Your task to perform on an android device: toggle priority inbox in the gmail app Image 0: 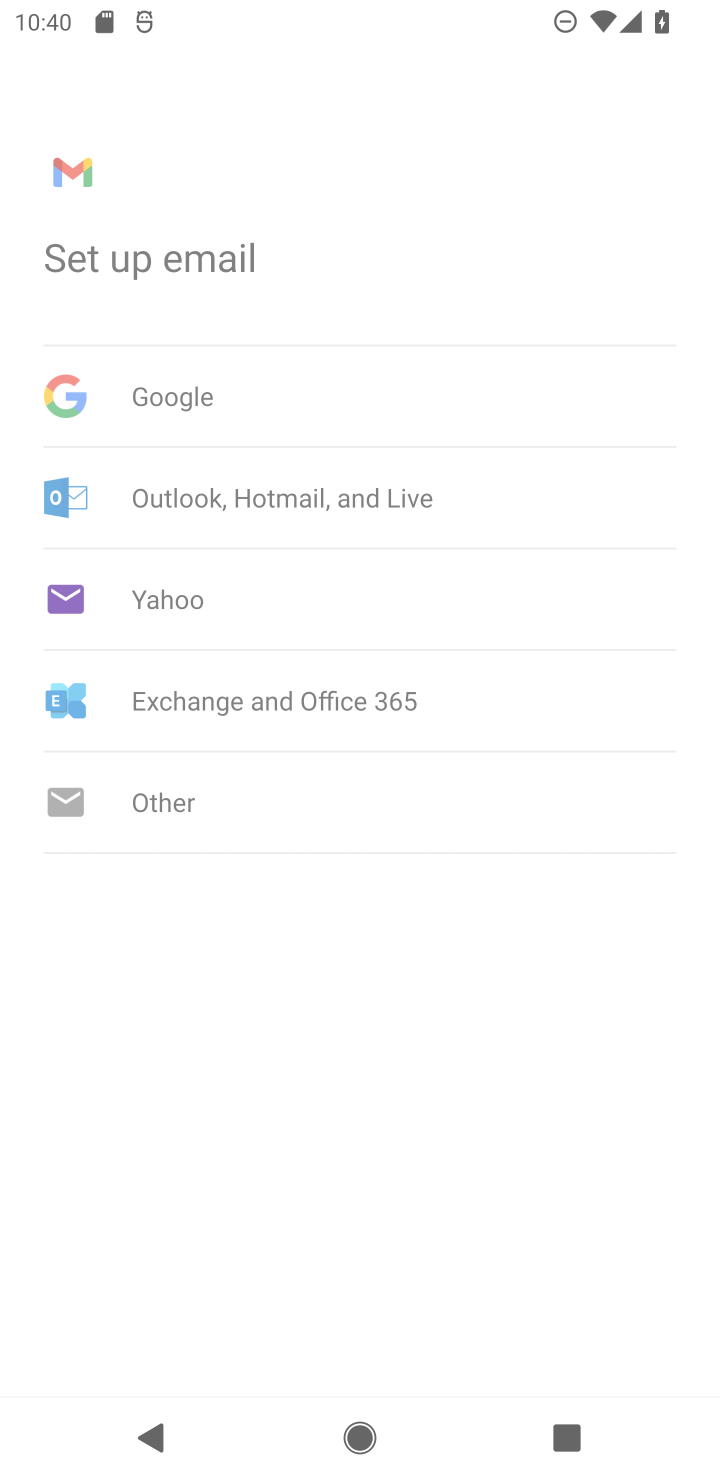
Step 0: click (657, 194)
Your task to perform on an android device: toggle priority inbox in the gmail app Image 1: 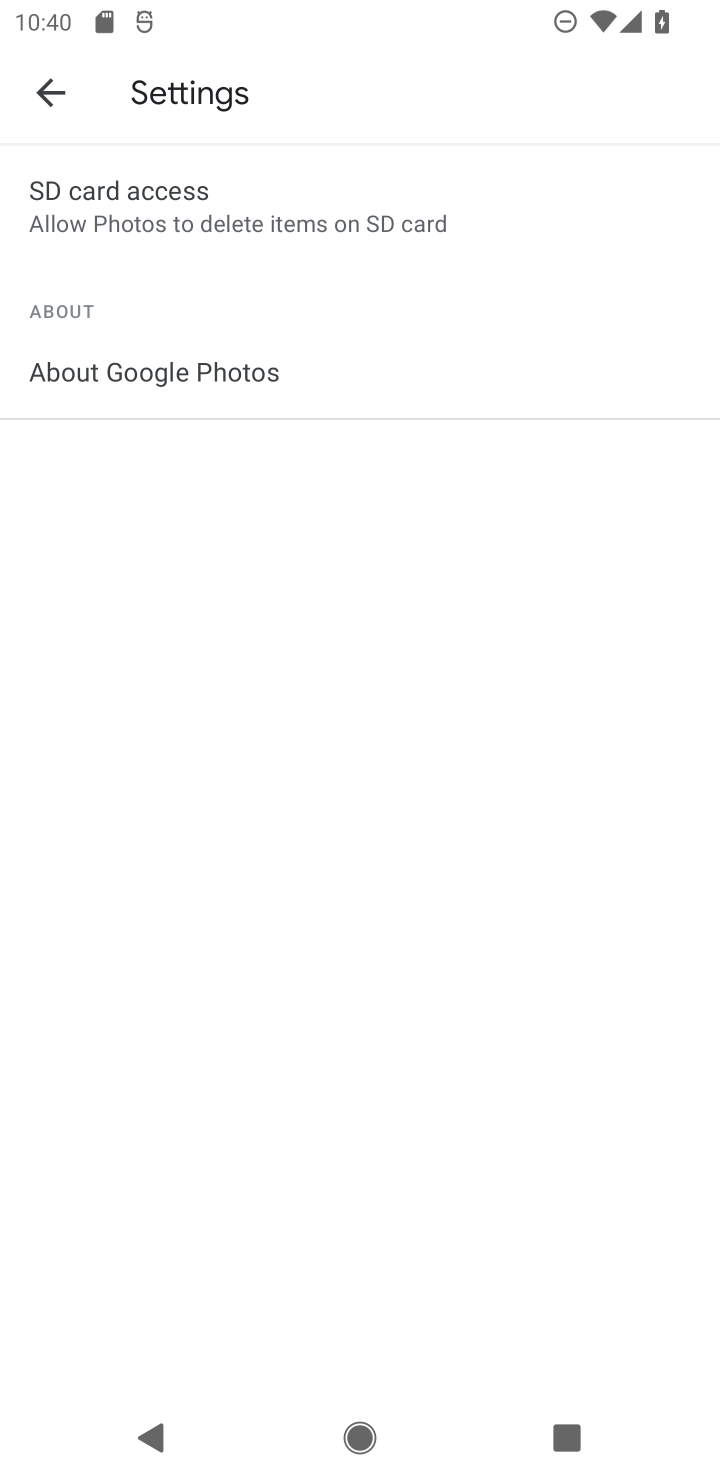
Step 1: press home button
Your task to perform on an android device: toggle priority inbox in the gmail app Image 2: 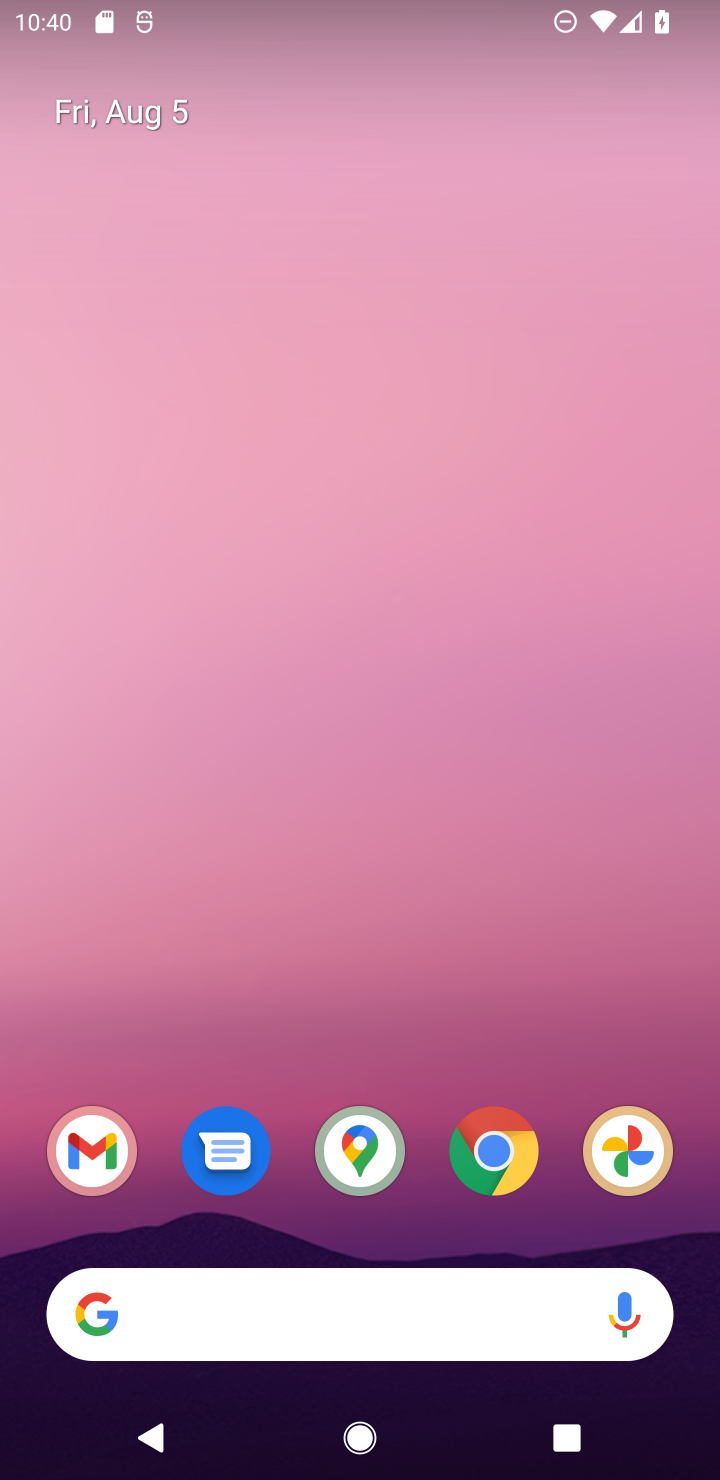
Step 2: click (86, 1151)
Your task to perform on an android device: toggle priority inbox in the gmail app Image 3: 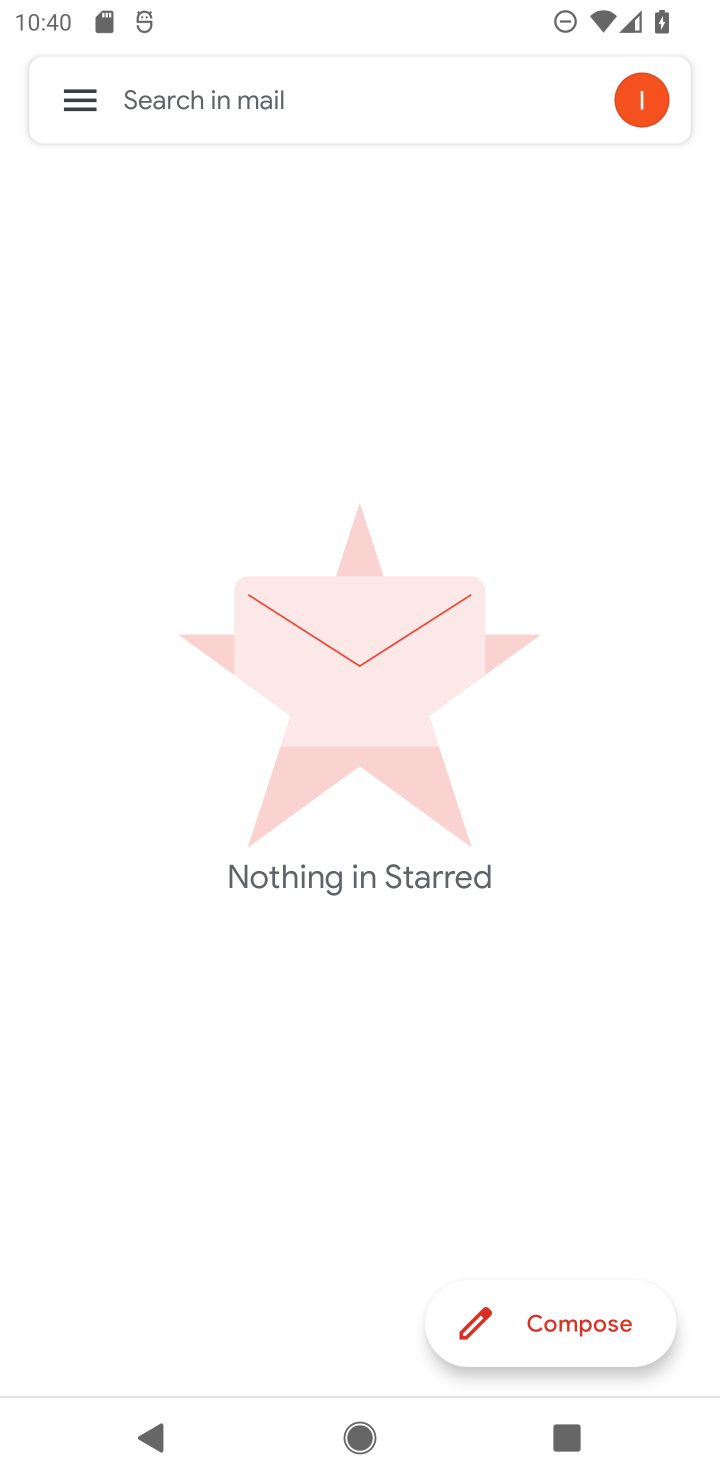
Step 3: click (71, 101)
Your task to perform on an android device: toggle priority inbox in the gmail app Image 4: 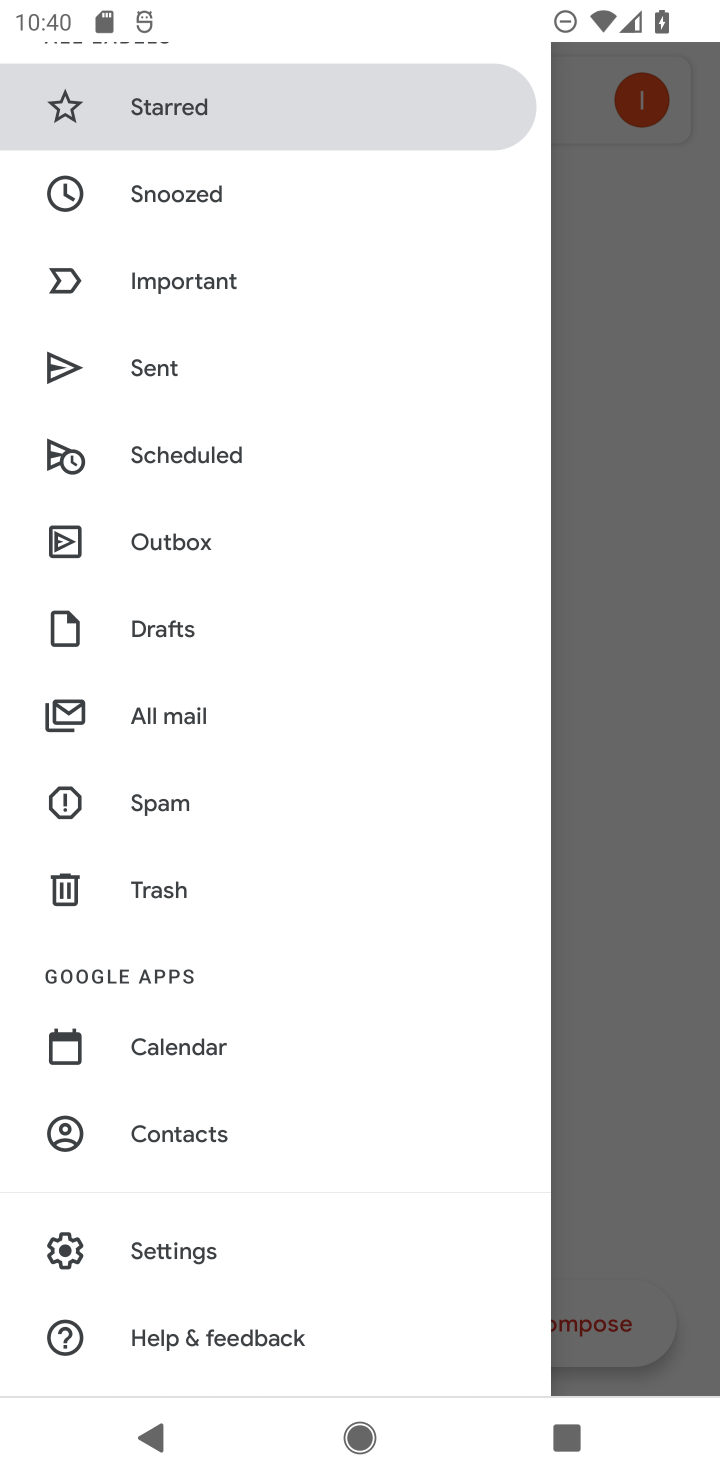
Step 4: click (173, 1246)
Your task to perform on an android device: toggle priority inbox in the gmail app Image 5: 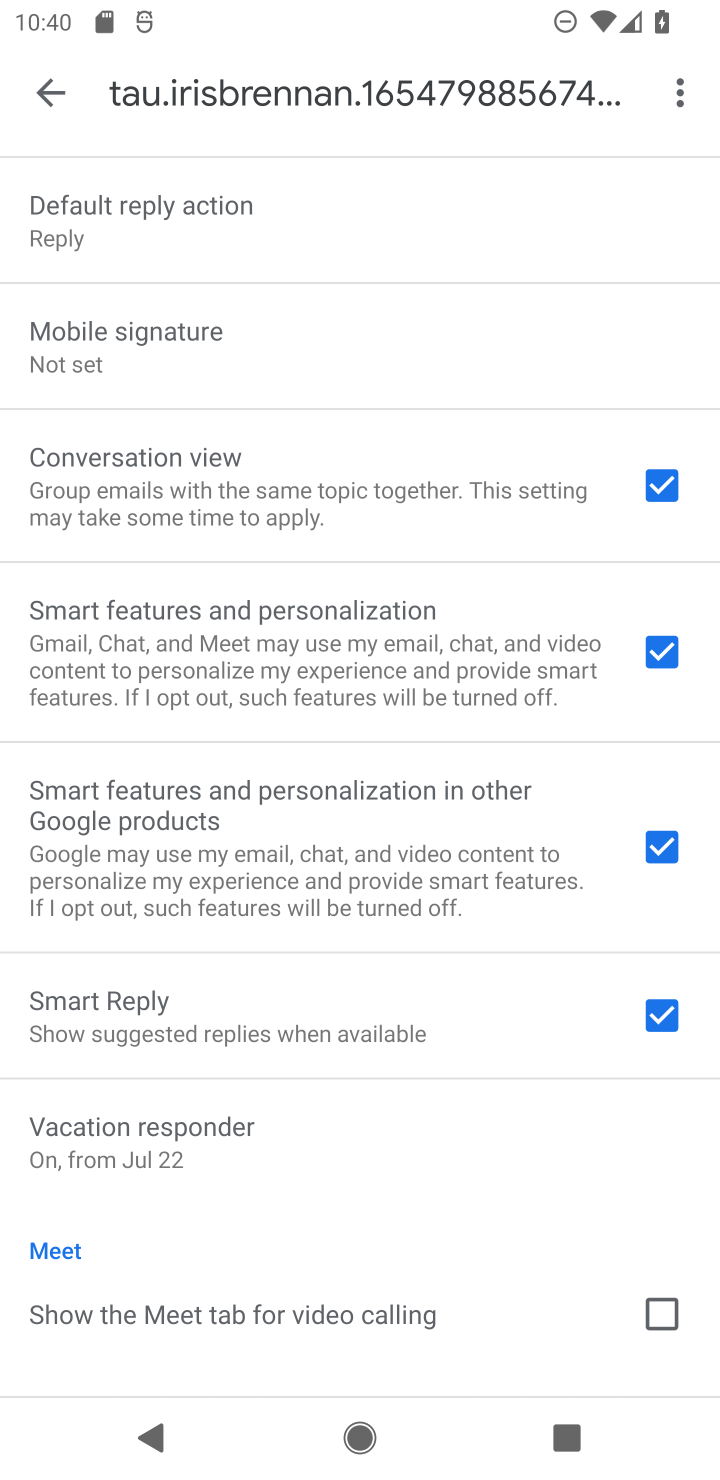
Step 5: drag from (399, 547) to (355, 1253)
Your task to perform on an android device: toggle priority inbox in the gmail app Image 6: 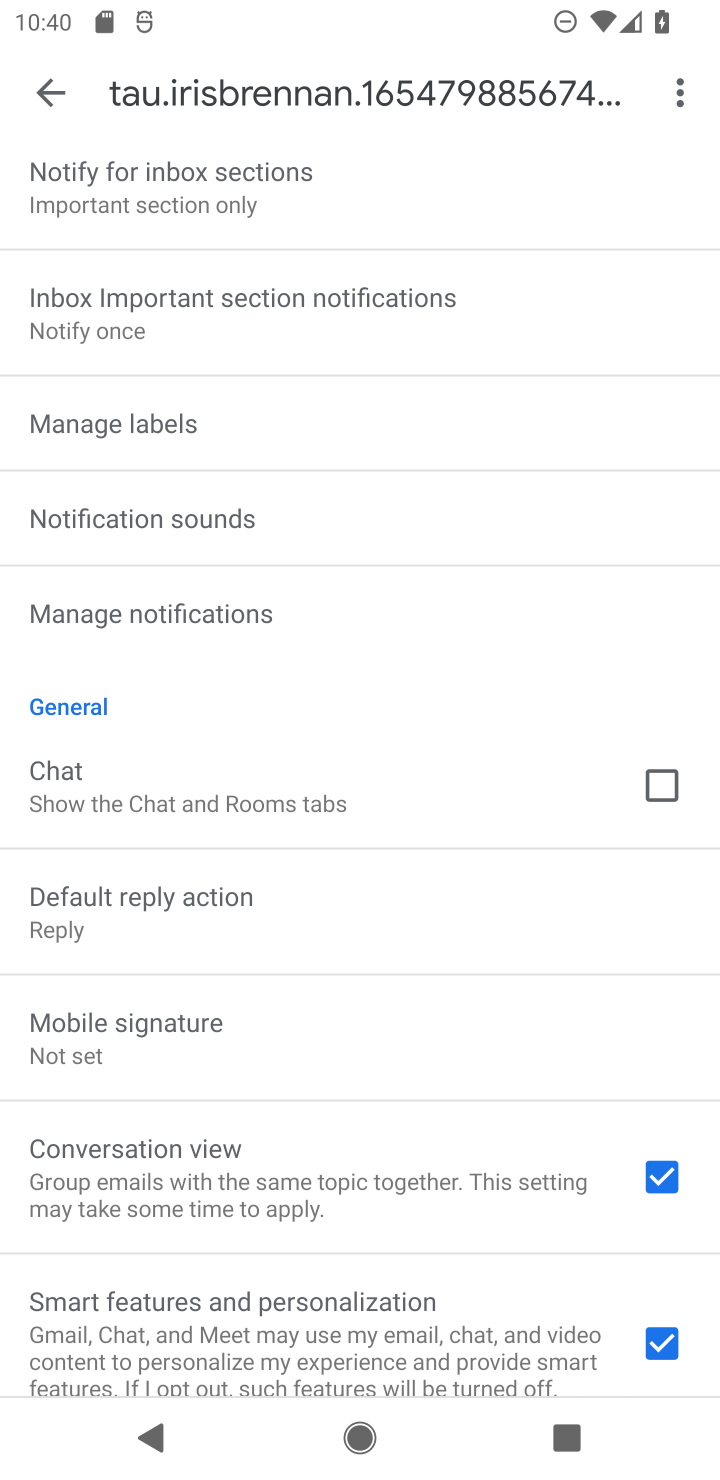
Step 6: drag from (497, 477) to (497, 1041)
Your task to perform on an android device: toggle priority inbox in the gmail app Image 7: 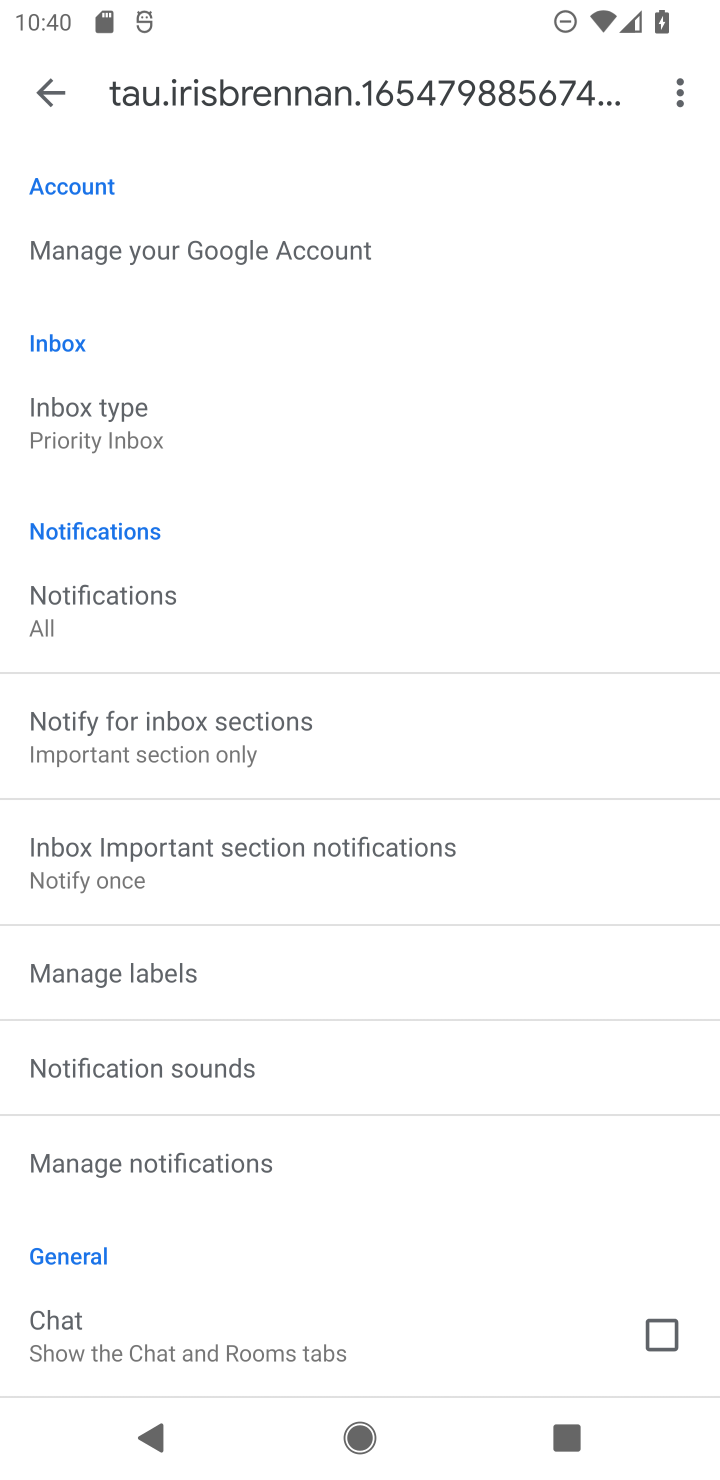
Step 7: click (180, 450)
Your task to perform on an android device: toggle priority inbox in the gmail app Image 8: 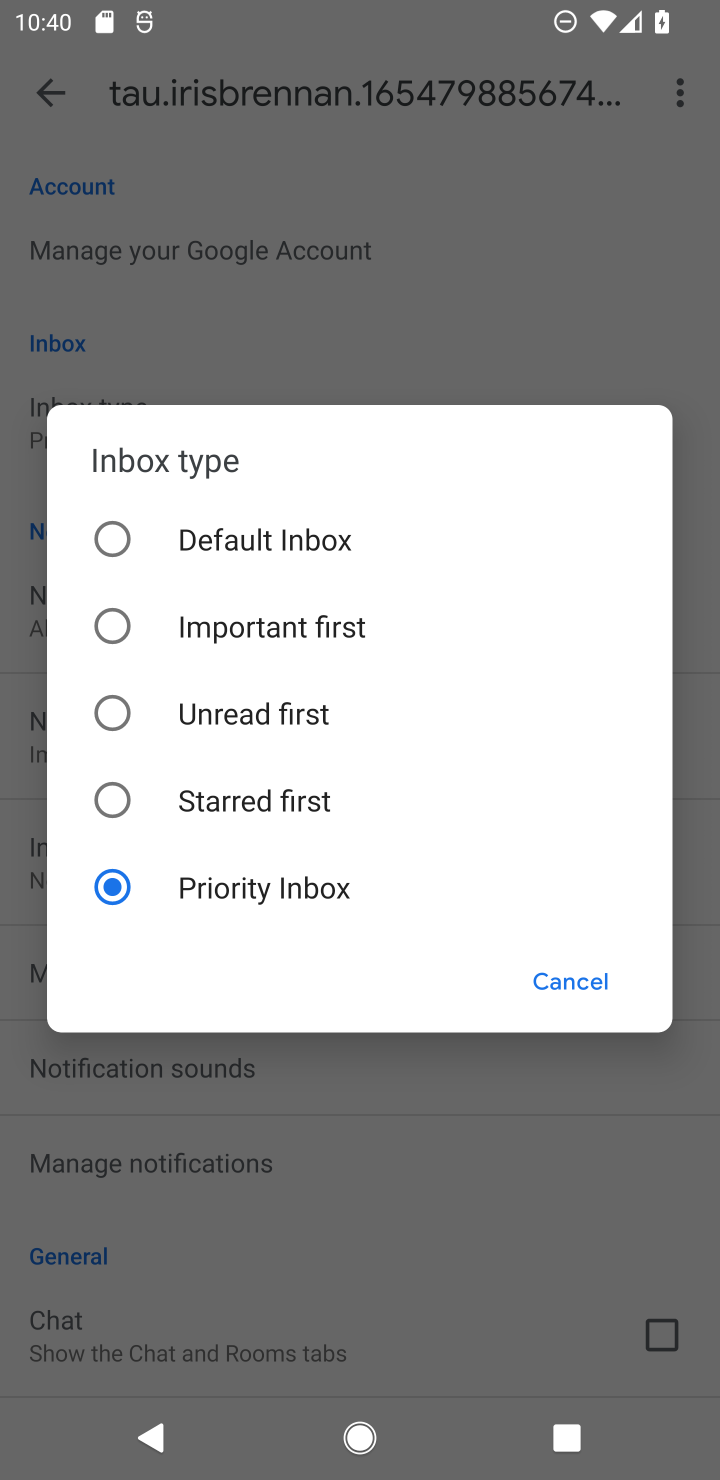
Step 8: click (101, 534)
Your task to perform on an android device: toggle priority inbox in the gmail app Image 9: 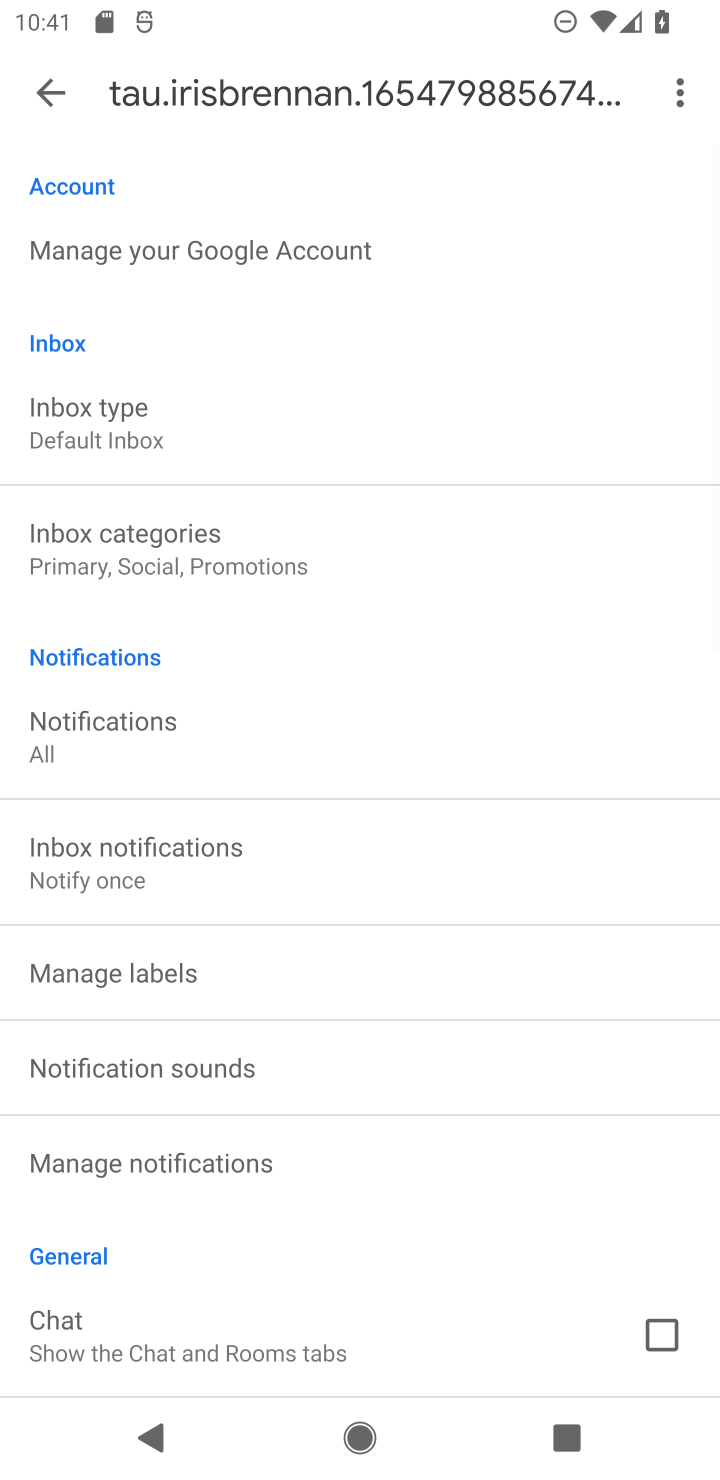
Step 9: task complete